Your task to perform on an android device: Open display settings Image 0: 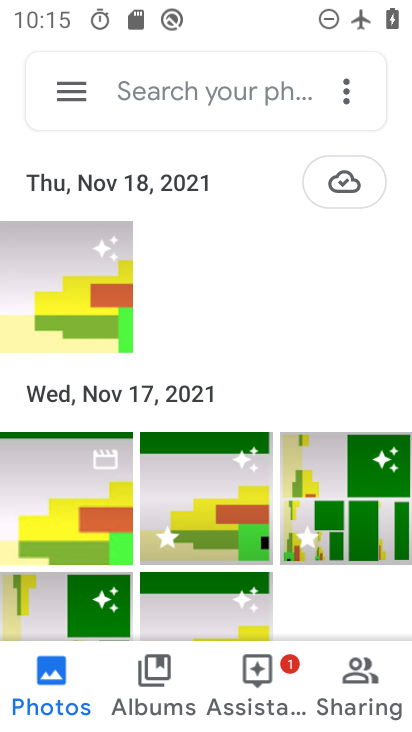
Step 0: press back button
Your task to perform on an android device: Open display settings Image 1: 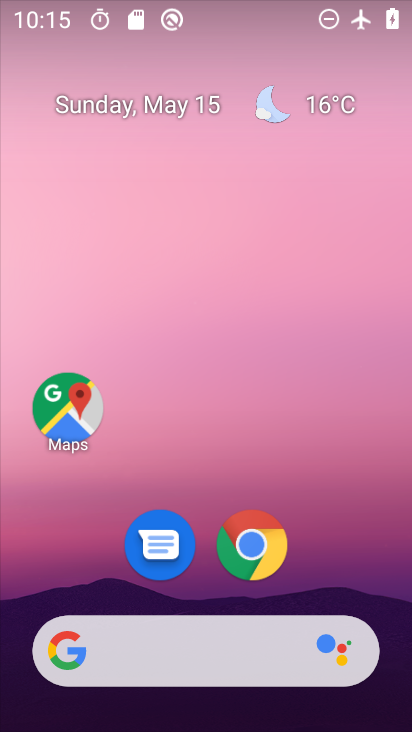
Step 1: drag from (336, 527) to (228, 38)
Your task to perform on an android device: Open display settings Image 2: 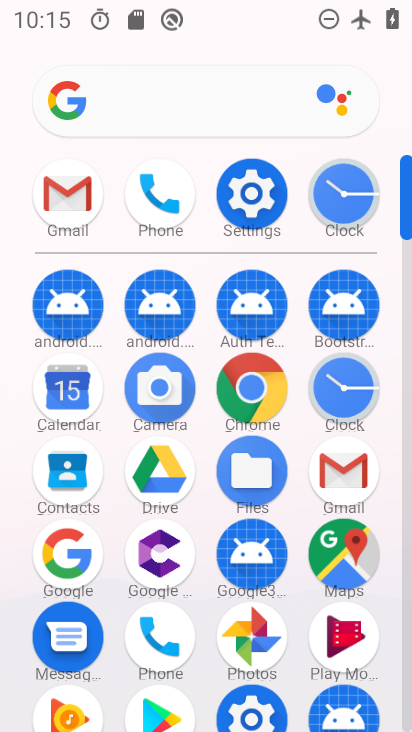
Step 2: click (253, 192)
Your task to perform on an android device: Open display settings Image 3: 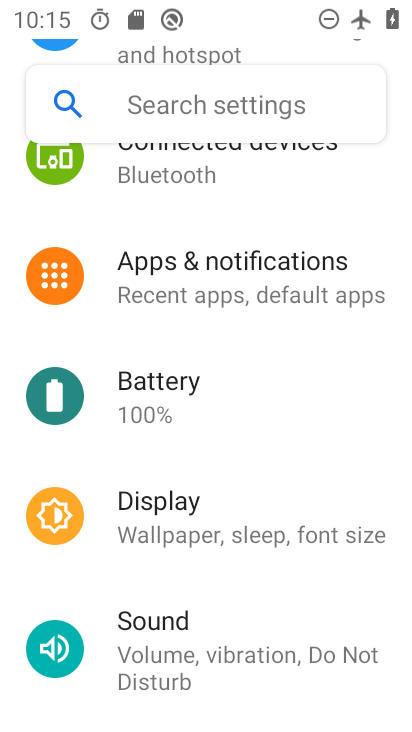
Step 3: click (168, 497)
Your task to perform on an android device: Open display settings Image 4: 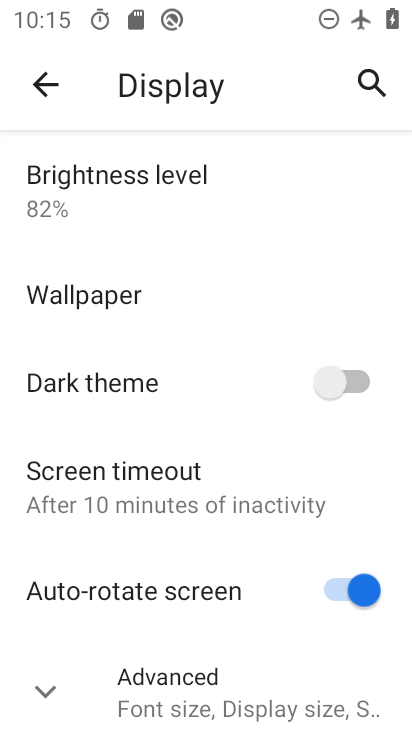
Step 4: task complete